Your task to perform on an android device: Go to Google maps Image 0: 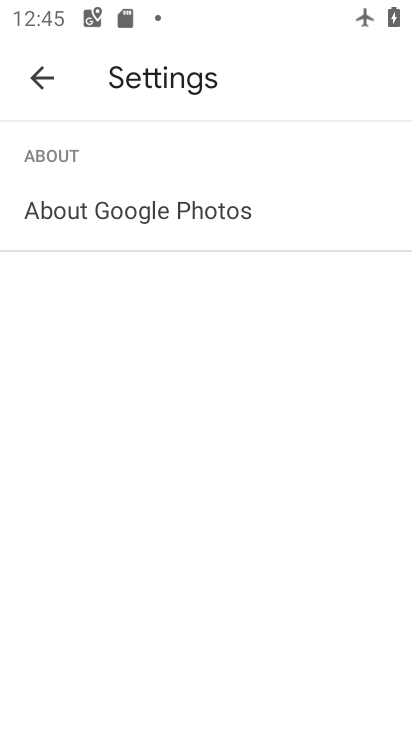
Step 0: press home button
Your task to perform on an android device: Go to Google maps Image 1: 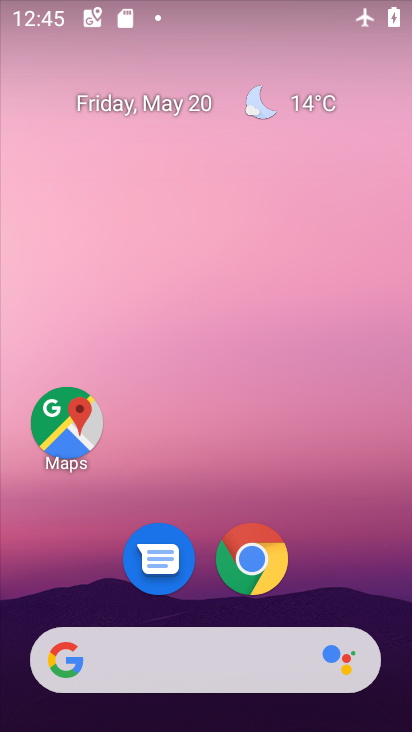
Step 1: drag from (341, 581) to (244, 83)
Your task to perform on an android device: Go to Google maps Image 2: 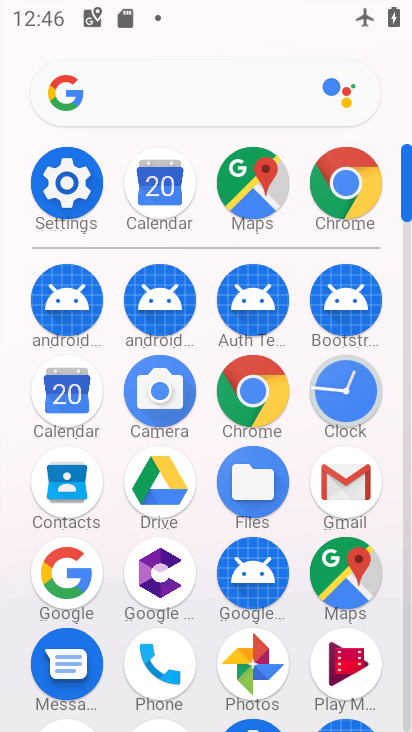
Step 2: click (348, 580)
Your task to perform on an android device: Go to Google maps Image 3: 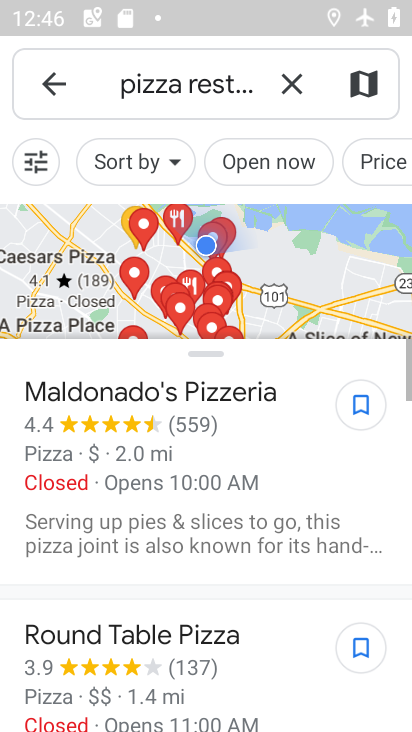
Step 3: task complete